Your task to perform on an android device: toggle wifi Image 0: 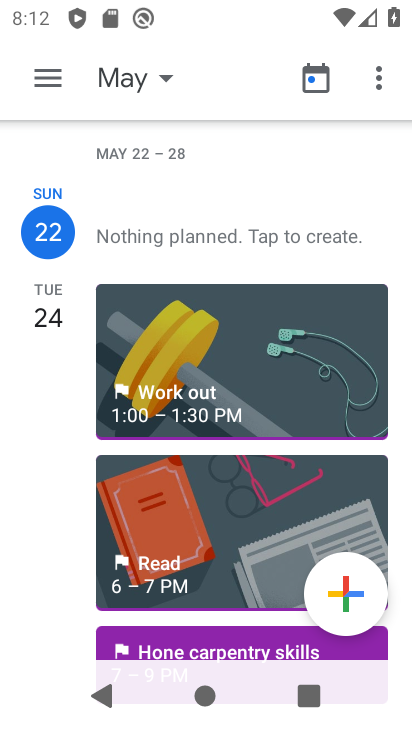
Step 0: press home button
Your task to perform on an android device: toggle wifi Image 1: 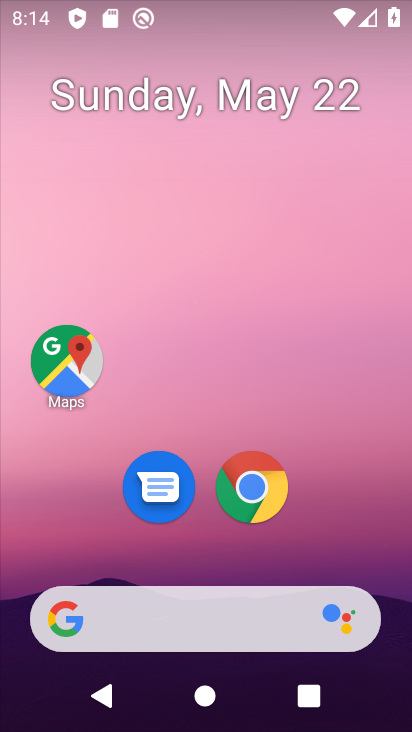
Step 1: drag from (353, 489) to (188, 23)
Your task to perform on an android device: toggle wifi Image 2: 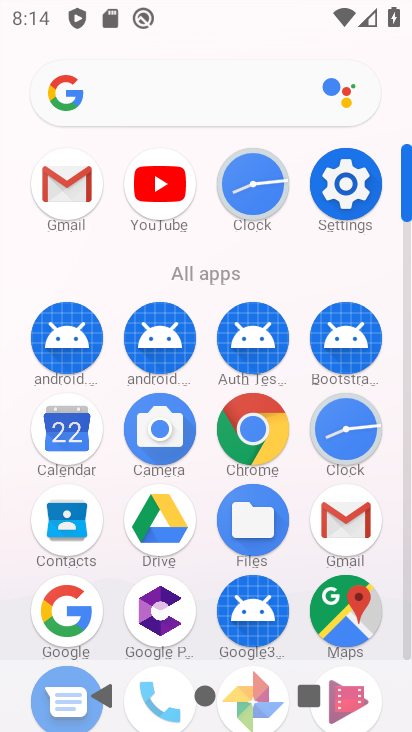
Step 2: click (366, 182)
Your task to perform on an android device: toggle wifi Image 3: 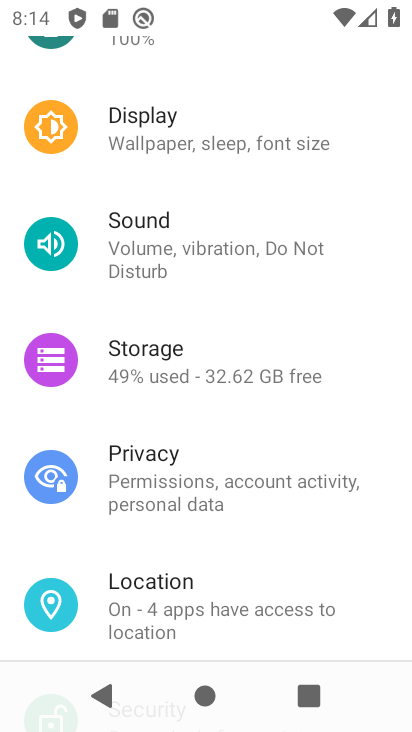
Step 3: drag from (210, 79) to (293, 621)
Your task to perform on an android device: toggle wifi Image 4: 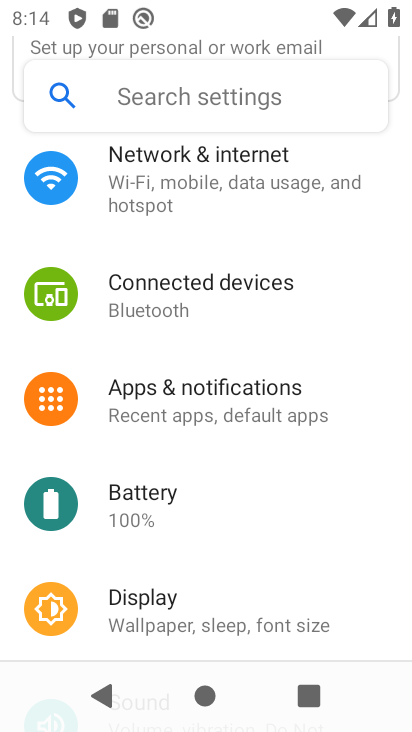
Step 4: drag from (211, 375) to (213, 695)
Your task to perform on an android device: toggle wifi Image 5: 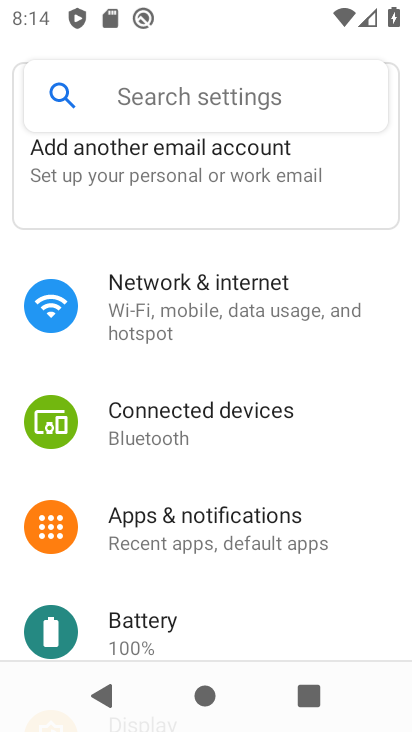
Step 5: click (169, 323)
Your task to perform on an android device: toggle wifi Image 6: 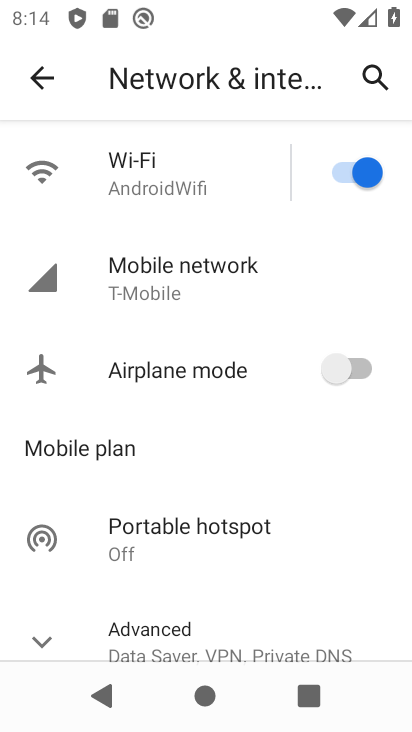
Step 6: click (366, 173)
Your task to perform on an android device: toggle wifi Image 7: 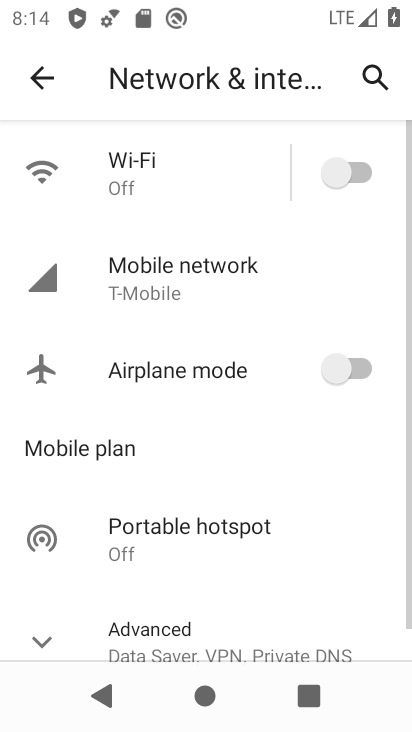
Step 7: task complete